Your task to perform on an android device: check data usage Image 0: 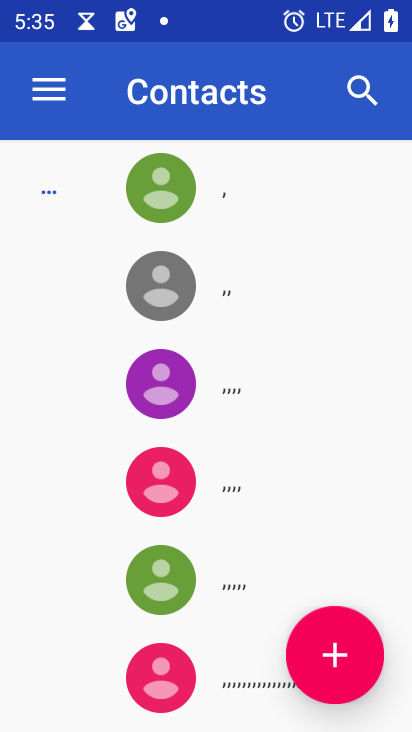
Step 0: drag from (345, 542) to (240, 65)
Your task to perform on an android device: check data usage Image 1: 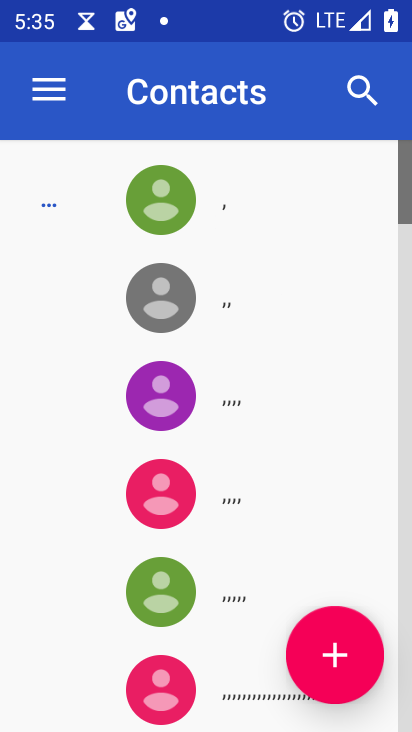
Step 1: press home button
Your task to perform on an android device: check data usage Image 2: 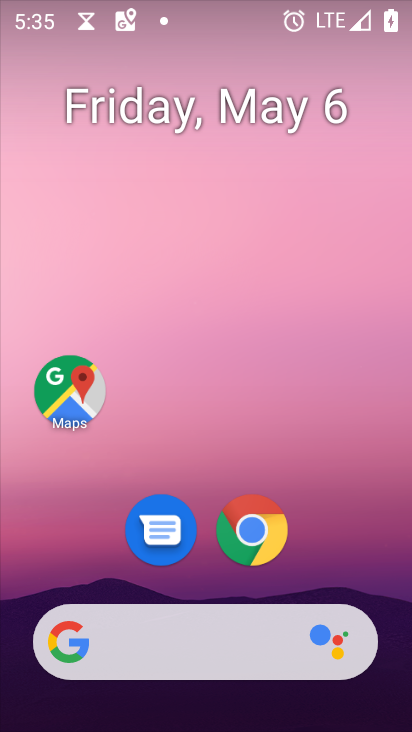
Step 2: drag from (333, 473) to (240, 71)
Your task to perform on an android device: check data usage Image 3: 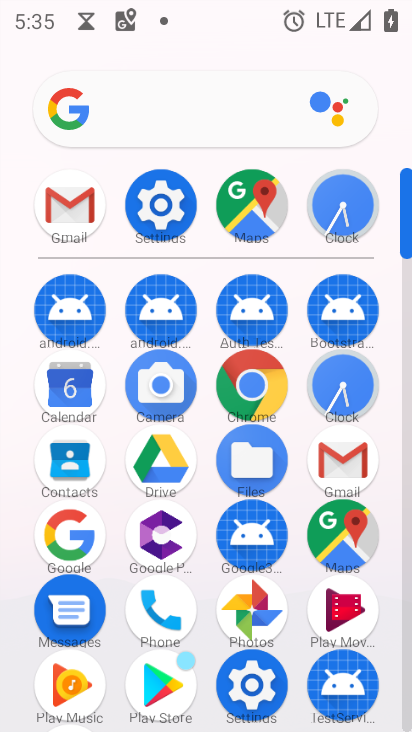
Step 3: click (154, 204)
Your task to perform on an android device: check data usage Image 4: 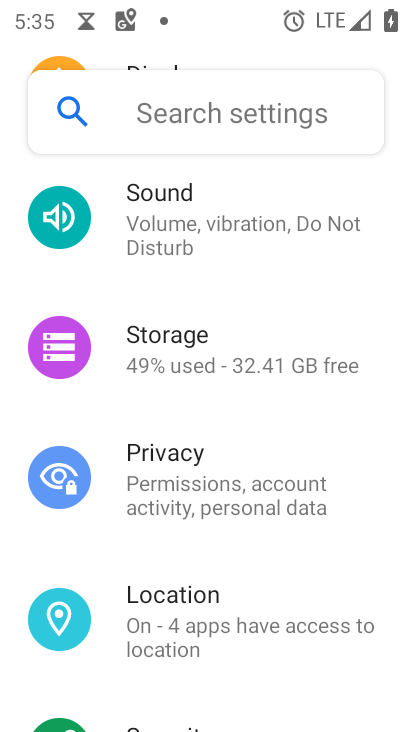
Step 4: drag from (243, 167) to (227, 650)
Your task to perform on an android device: check data usage Image 5: 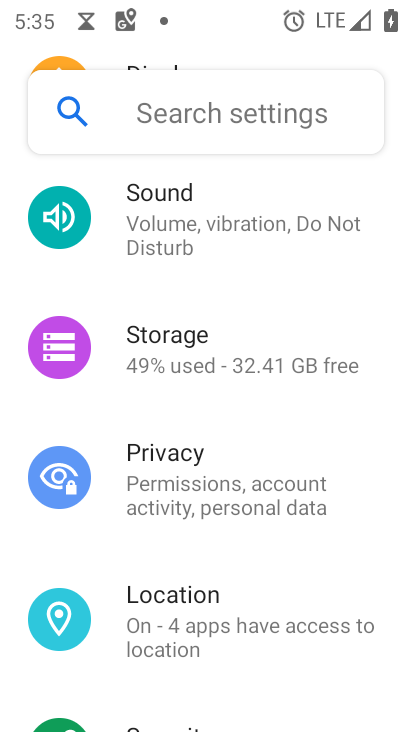
Step 5: drag from (275, 252) to (264, 703)
Your task to perform on an android device: check data usage Image 6: 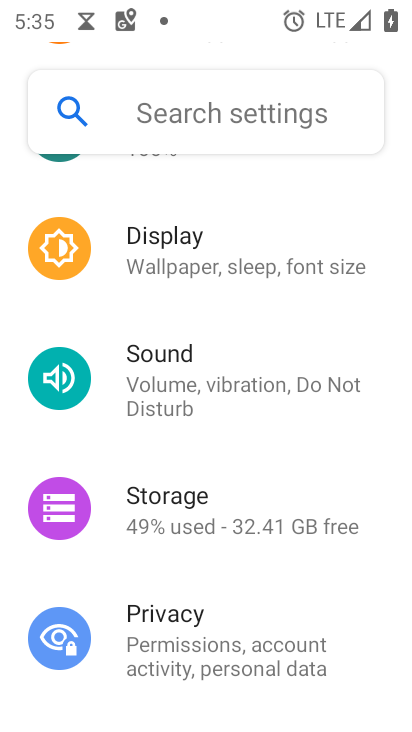
Step 6: drag from (238, 213) to (190, 729)
Your task to perform on an android device: check data usage Image 7: 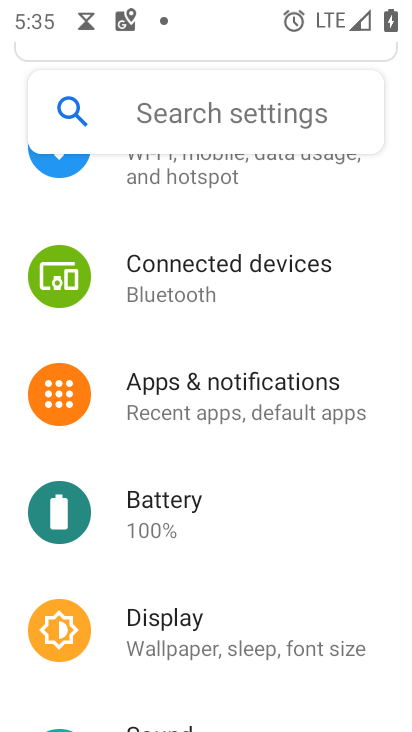
Step 7: click (183, 188)
Your task to perform on an android device: check data usage Image 8: 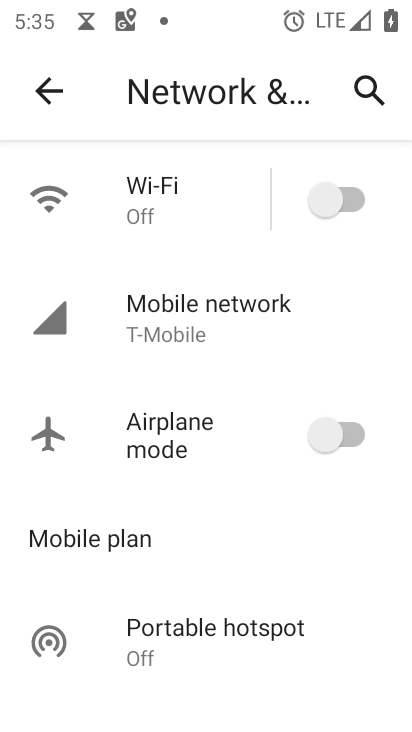
Step 8: click (141, 309)
Your task to perform on an android device: check data usage Image 9: 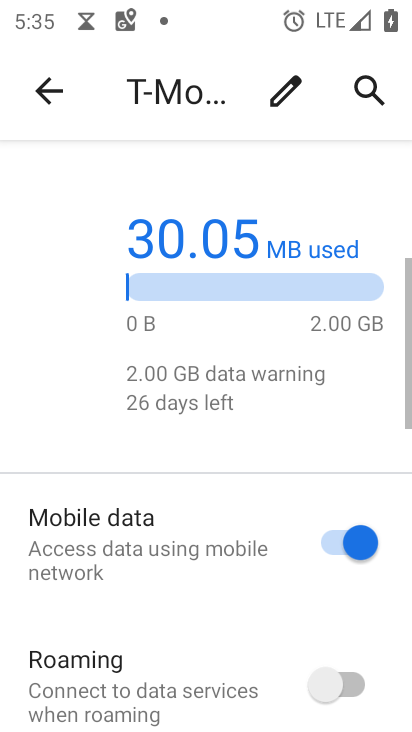
Step 9: task complete